Your task to perform on an android device: toggle sleep mode Image 0: 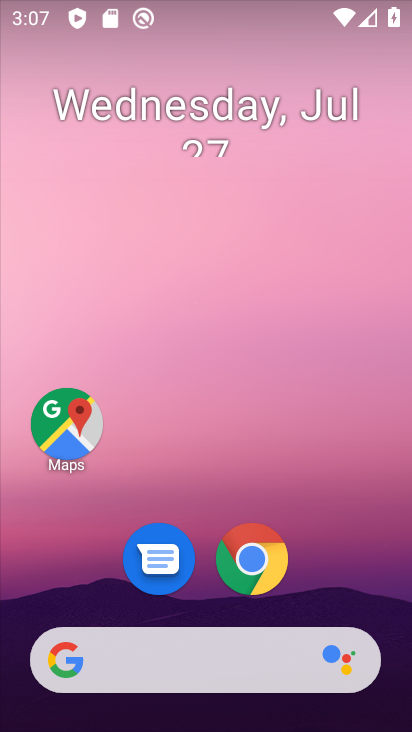
Step 0: drag from (59, 582) to (194, 22)
Your task to perform on an android device: toggle sleep mode Image 1: 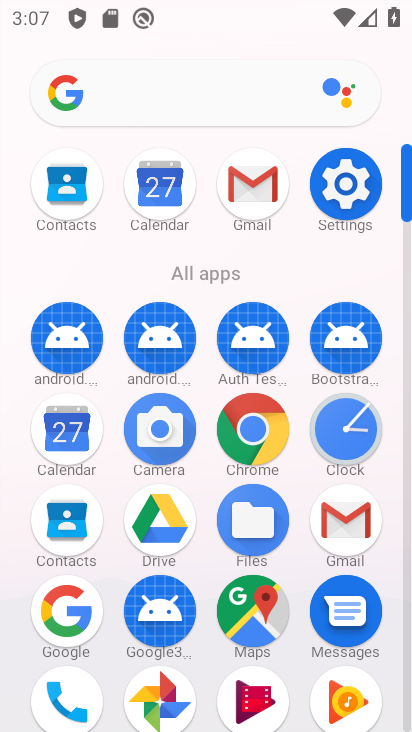
Step 1: click (353, 179)
Your task to perform on an android device: toggle sleep mode Image 2: 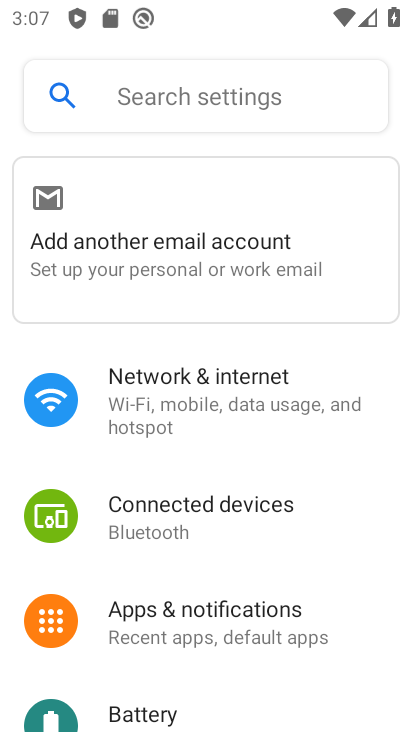
Step 2: click (190, 94)
Your task to perform on an android device: toggle sleep mode Image 3: 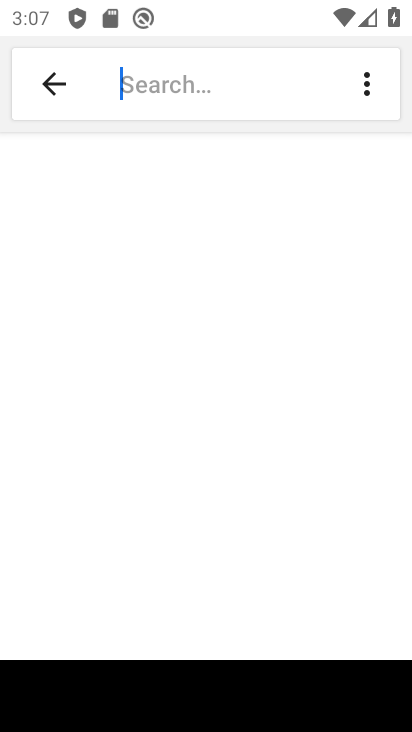
Step 3: click (134, 85)
Your task to perform on an android device: toggle sleep mode Image 4: 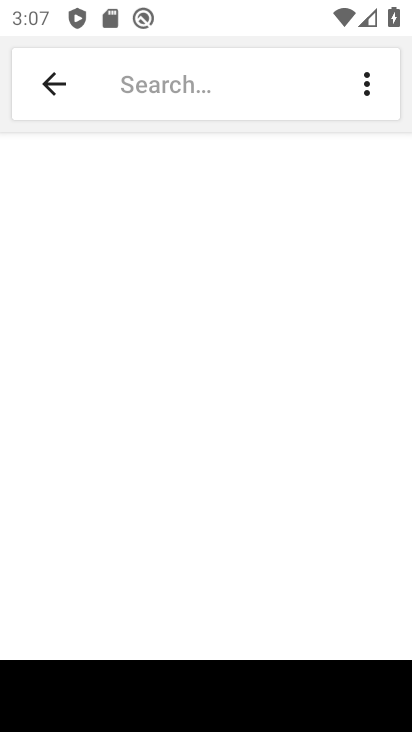
Step 4: type "sleep mode"
Your task to perform on an android device: toggle sleep mode Image 5: 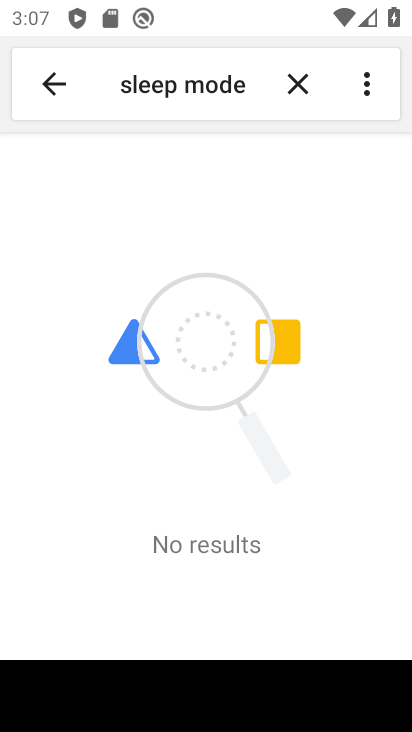
Step 5: task complete